Your task to perform on an android device: Play the last video I watched on Youtube Image 0: 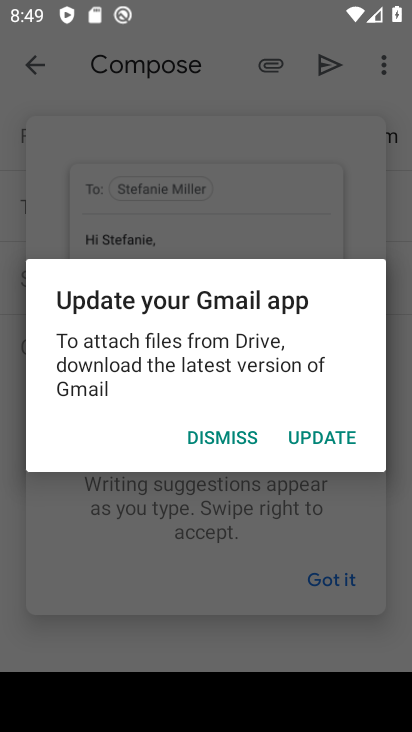
Step 0: press home button
Your task to perform on an android device: Play the last video I watched on Youtube Image 1: 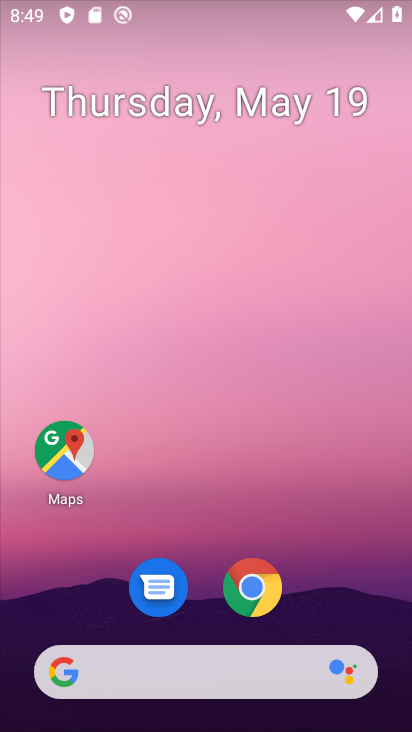
Step 1: drag from (342, 489) to (279, 88)
Your task to perform on an android device: Play the last video I watched on Youtube Image 2: 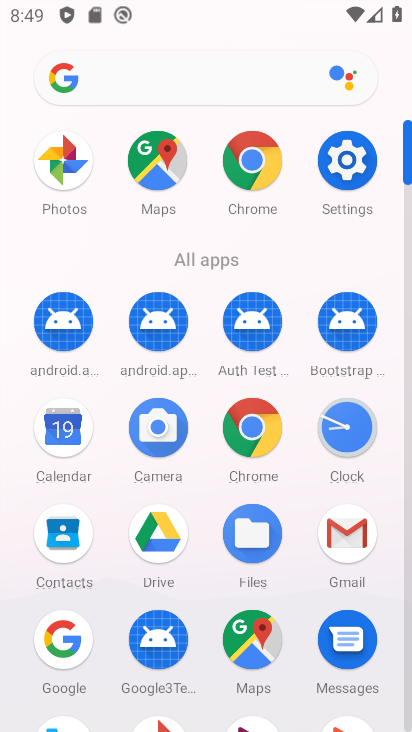
Step 2: drag from (252, 540) to (313, 176)
Your task to perform on an android device: Play the last video I watched on Youtube Image 3: 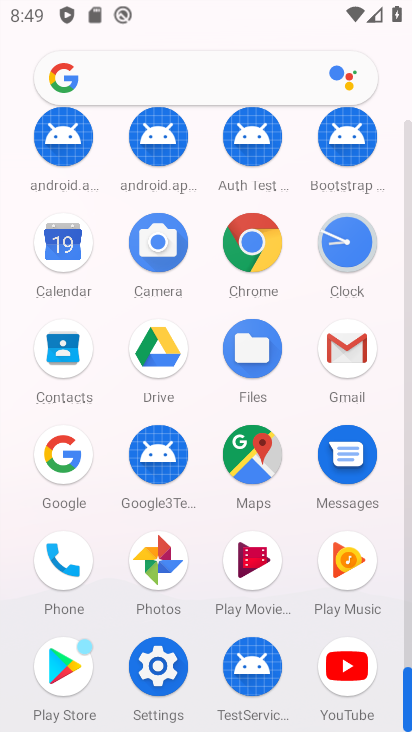
Step 3: click (339, 659)
Your task to perform on an android device: Play the last video I watched on Youtube Image 4: 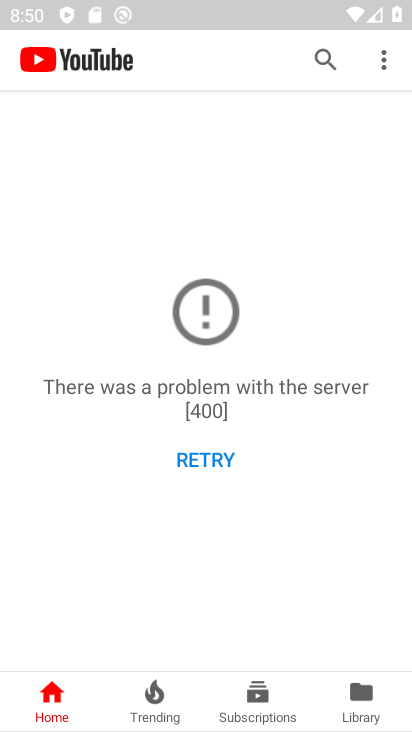
Step 4: click (369, 678)
Your task to perform on an android device: Play the last video I watched on Youtube Image 5: 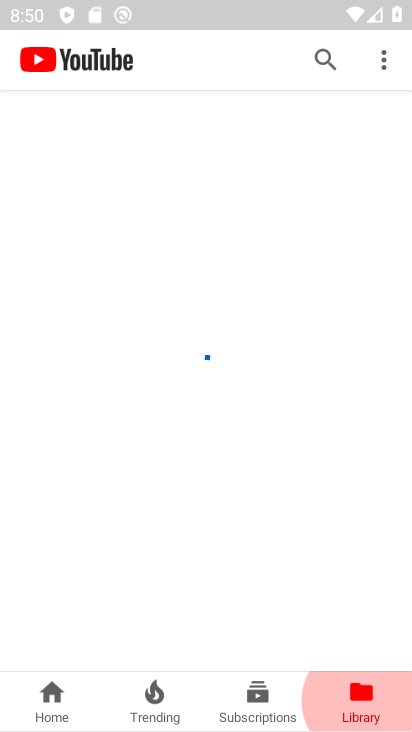
Step 5: click (363, 697)
Your task to perform on an android device: Play the last video I watched on Youtube Image 6: 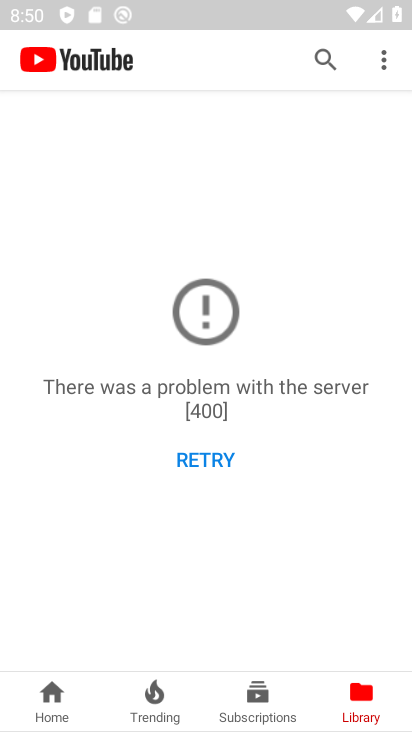
Step 6: task complete